Your task to perform on an android device: Go to notification settings Image 0: 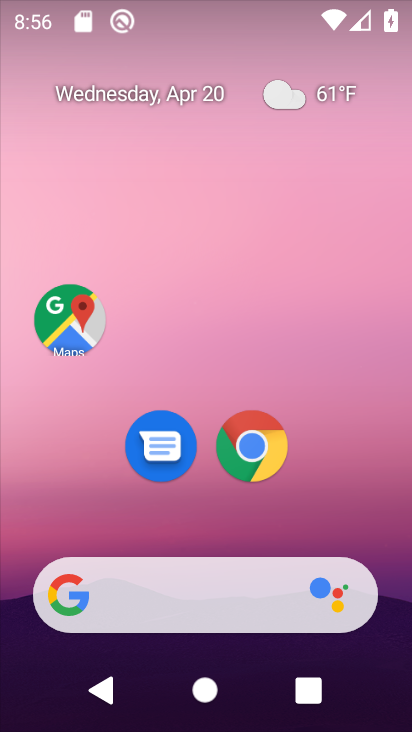
Step 0: drag from (351, 505) to (344, 137)
Your task to perform on an android device: Go to notification settings Image 1: 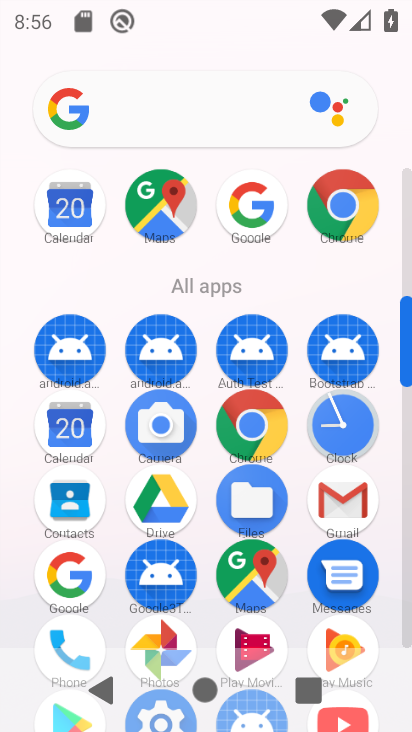
Step 1: drag from (294, 544) to (294, 286)
Your task to perform on an android device: Go to notification settings Image 2: 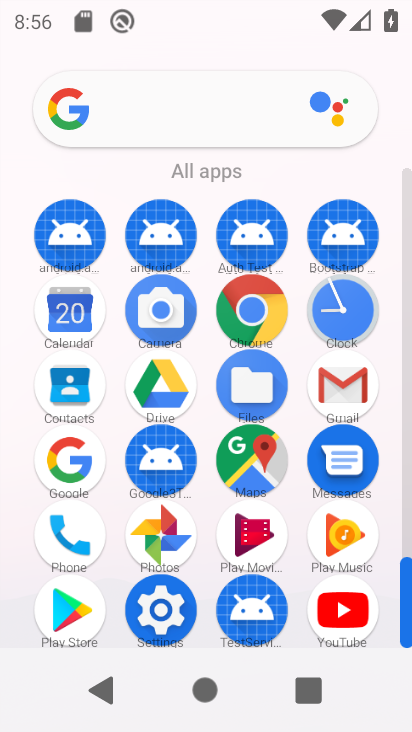
Step 2: click (143, 626)
Your task to perform on an android device: Go to notification settings Image 3: 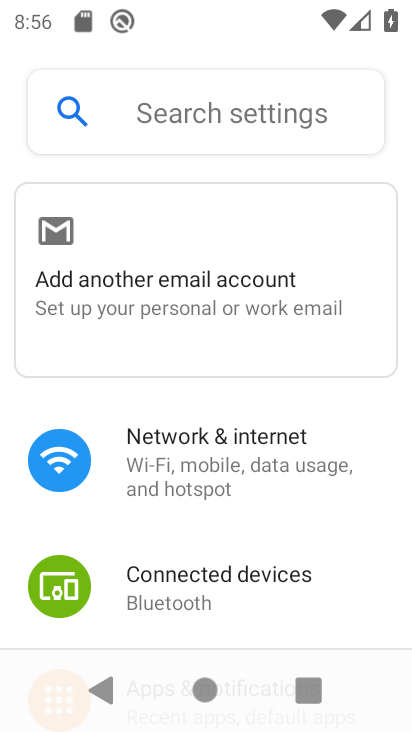
Step 3: drag from (322, 585) to (328, 222)
Your task to perform on an android device: Go to notification settings Image 4: 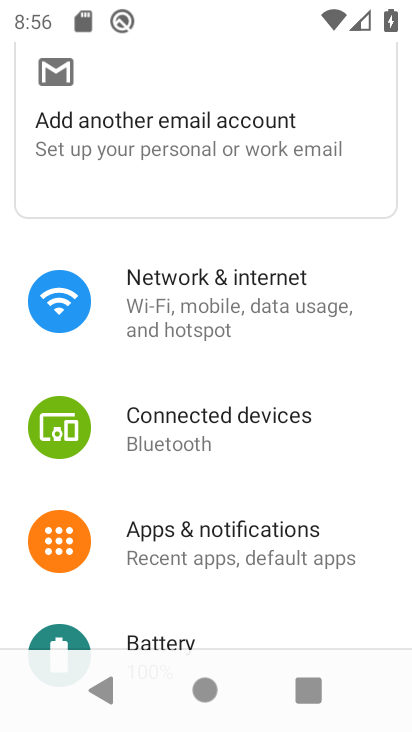
Step 4: click (290, 532)
Your task to perform on an android device: Go to notification settings Image 5: 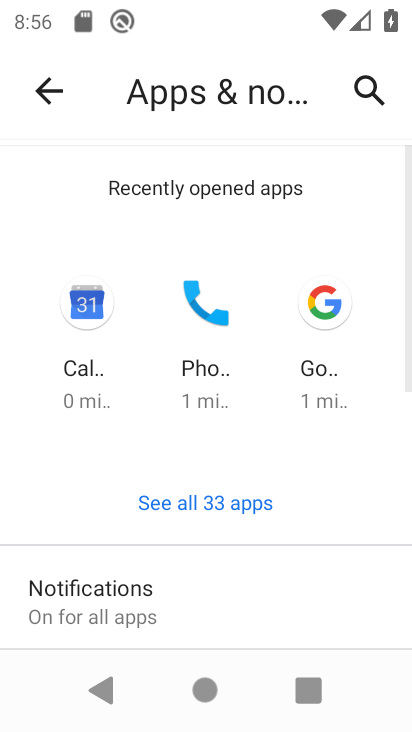
Step 5: drag from (281, 559) to (311, 294)
Your task to perform on an android device: Go to notification settings Image 6: 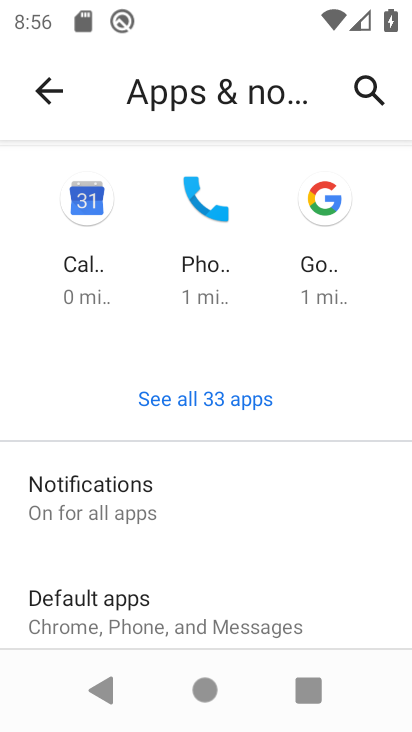
Step 6: click (102, 499)
Your task to perform on an android device: Go to notification settings Image 7: 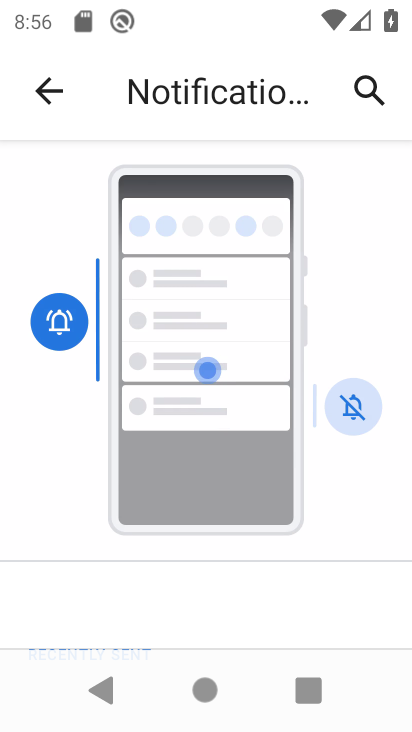
Step 7: task complete